Your task to perform on an android device: open app "Walmart Shopping & Grocery" Image 0: 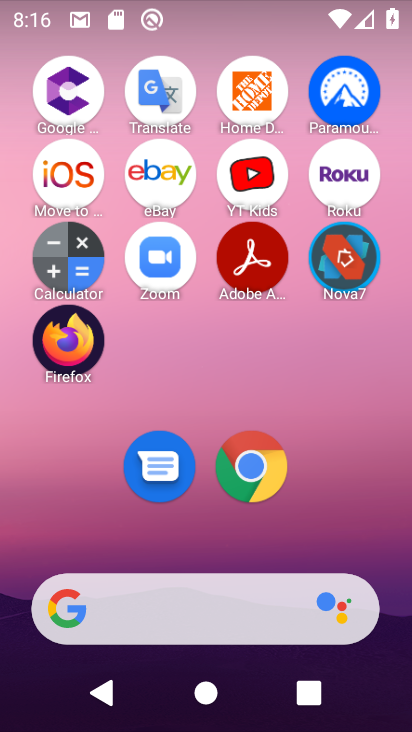
Step 0: drag from (207, 525) to (231, 8)
Your task to perform on an android device: open app "Walmart Shopping & Grocery" Image 1: 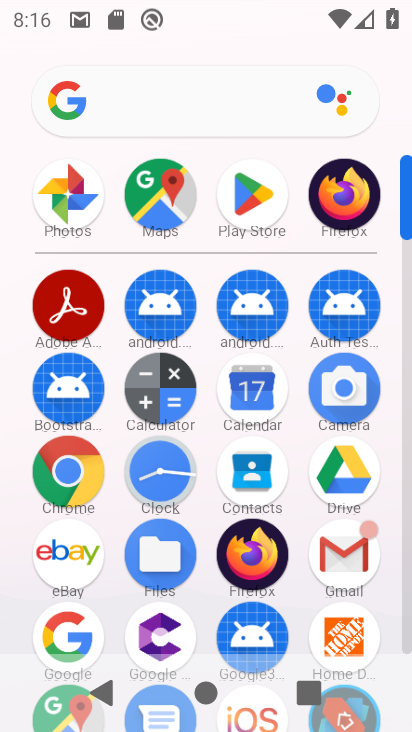
Step 1: click (261, 191)
Your task to perform on an android device: open app "Walmart Shopping & Grocery" Image 2: 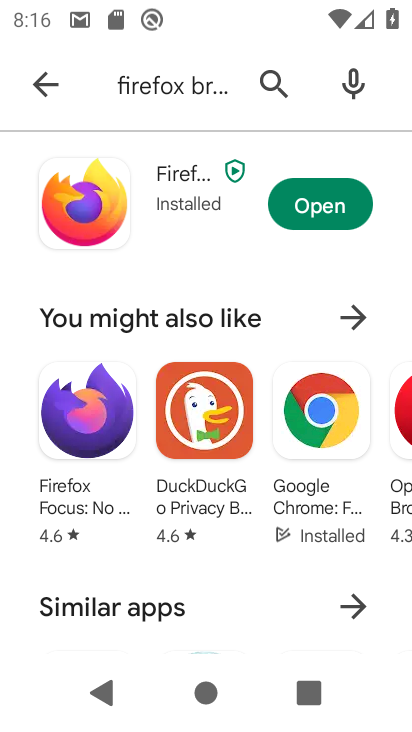
Step 2: click (170, 87)
Your task to perform on an android device: open app "Walmart Shopping & Grocery" Image 3: 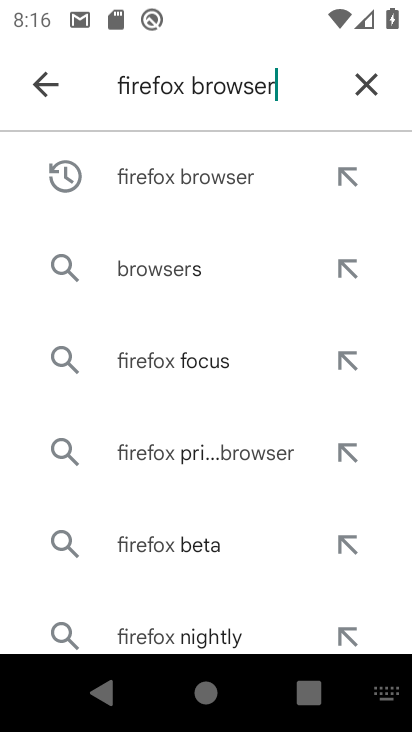
Step 3: click (357, 72)
Your task to perform on an android device: open app "Walmart Shopping & Grocery" Image 4: 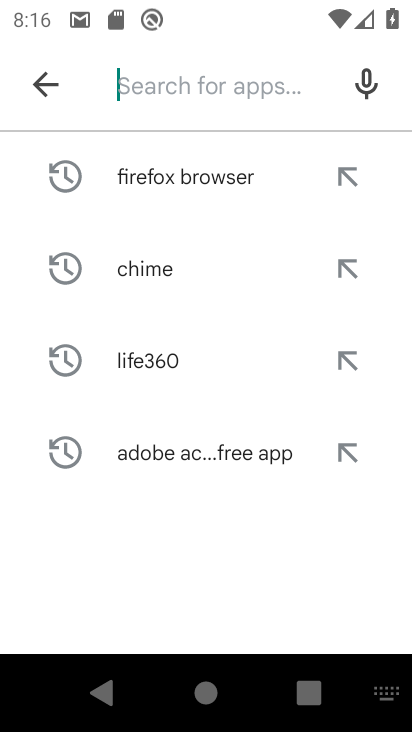
Step 4: type "Walmart "
Your task to perform on an android device: open app "Walmart Shopping & Grocery" Image 5: 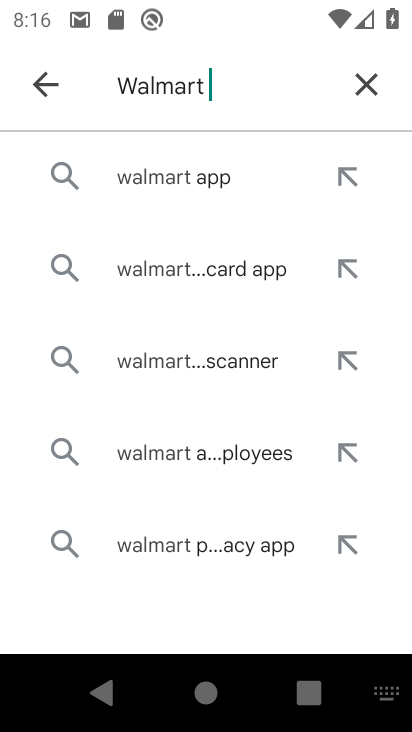
Step 5: click (164, 172)
Your task to perform on an android device: open app "Walmart Shopping & Grocery" Image 6: 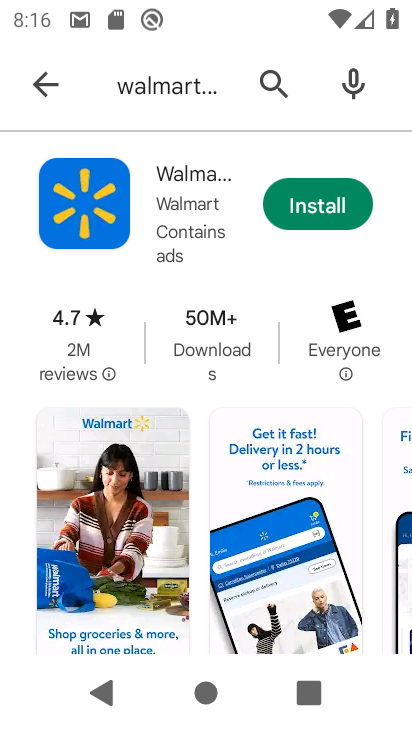
Step 6: click (111, 186)
Your task to perform on an android device: open app "Walmart Shopping & Grocery" Image 7: 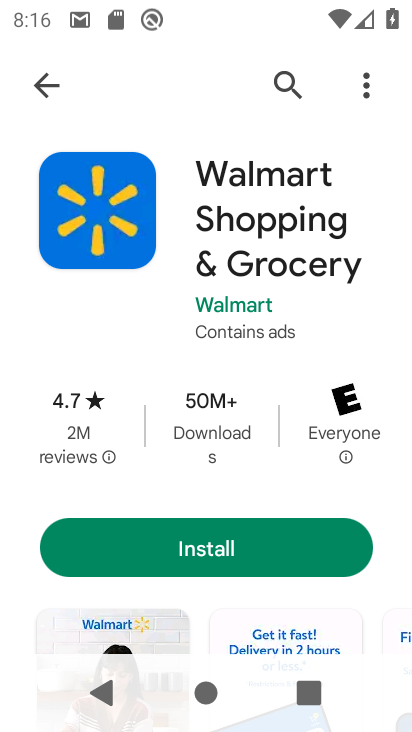
Step 7: task complete